Your task to perform on an android device: toggle javascript in the chrome app Image 0: 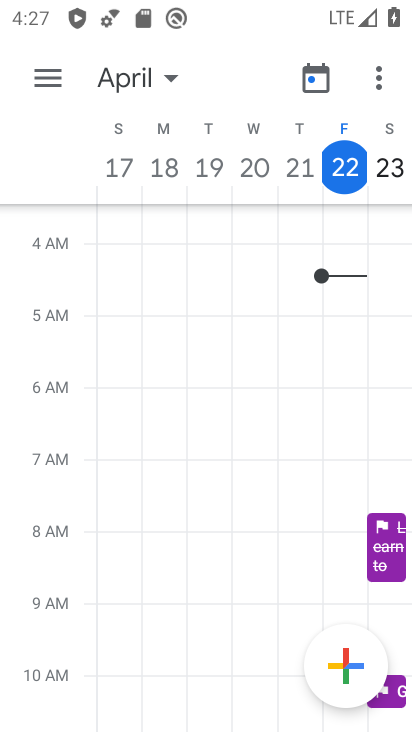
Step 0: press home button
Your task to perform on an android device: toggle javascript in the chrome app Image 1: 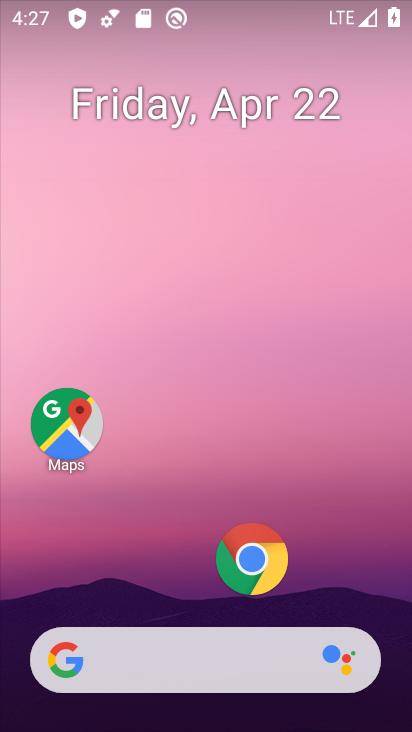
Step 1: click (254, 556)
Your task to perform on an android device: toggle javascript in the chrome app Image 2: 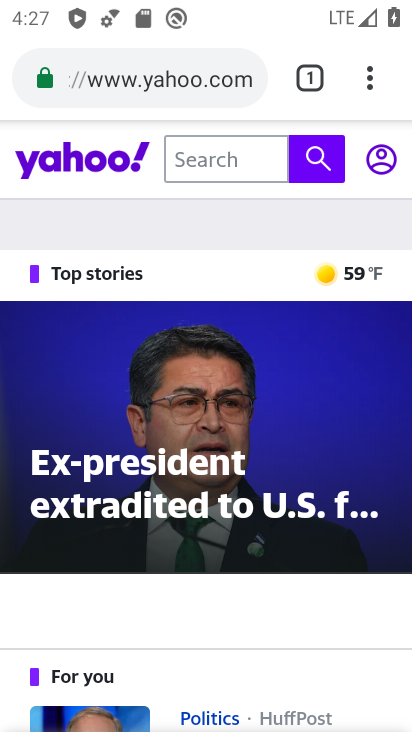
Step 2: click (367, 89)
Your task to perform on an android device: toggle javascript in the chrome app Image 3: 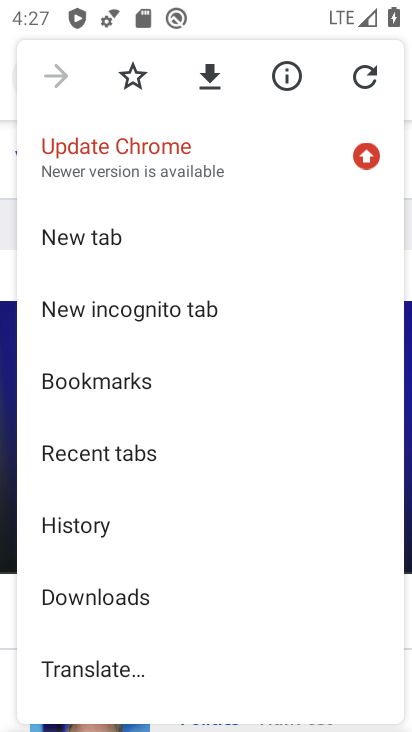
Step 3: drag from (158, 571) to (284, 32)
Your task to perform on an android device: toggle javascript in the chrome app Image 4: 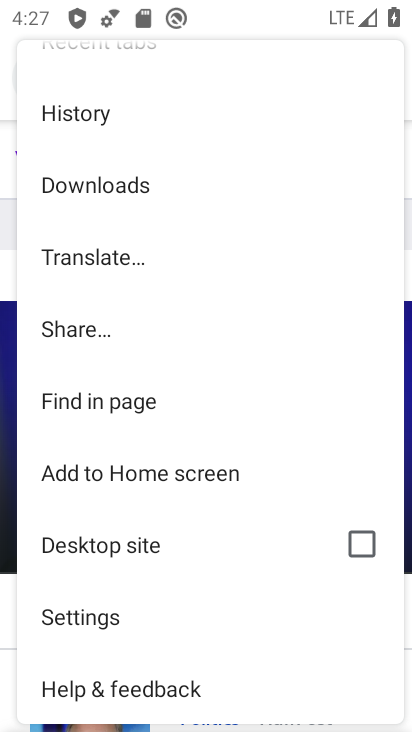
Step 4: click (80, 617)
Your task to perform on an android device: toggle javascript in the chrome app Image 5: 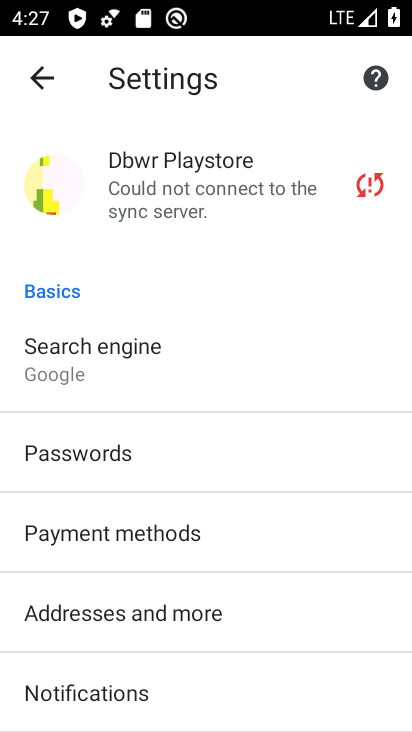
Step 5: drag from (116, 631) to (172, 396)
Your task to perform on an android device: toggle javascript in the chrome app Image 6: 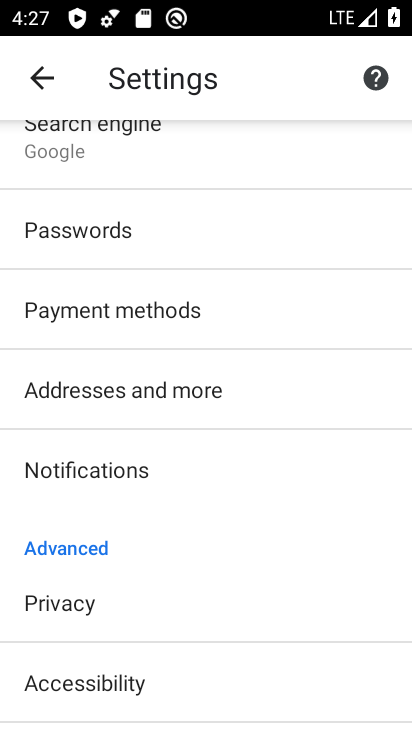
Step 6: drag from (112, 639) to (124, 460)
Your task to perform on an android device: toggle javascript in the chrome app Image 7: 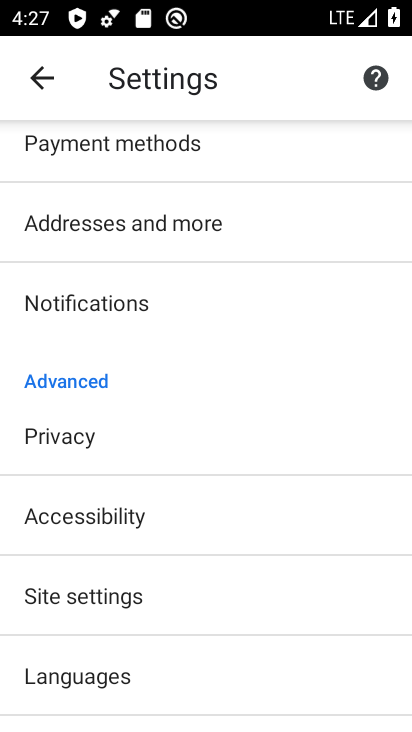
Step 7: click (88, 603)
Your task to perform on an android device: toggle javascript in the chrome app Image 8: 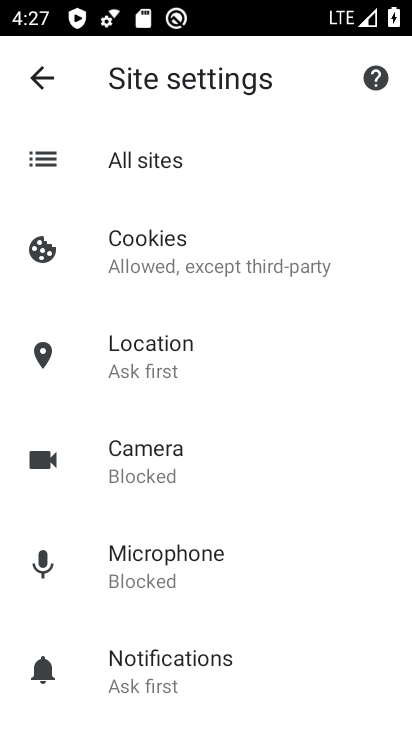
Step 8: drag from (136, 616) to (223, 166)
Your task to perform on an android device: toggle javascript in the chrome app Image 9: 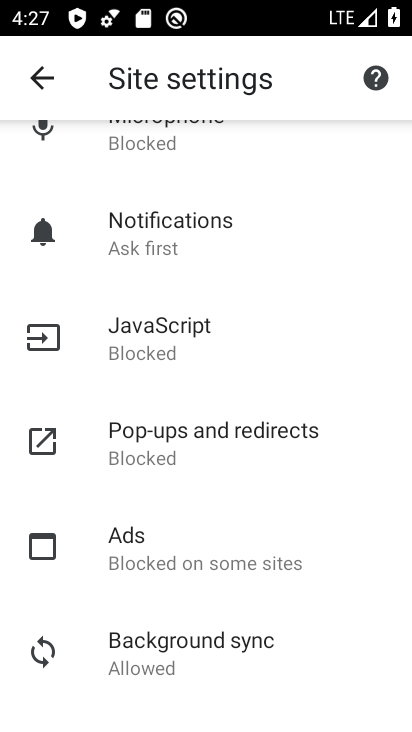
Step 9: click (173, 343)
Your task to perform on an android device: toggle javascript in the chrome app Image 10: 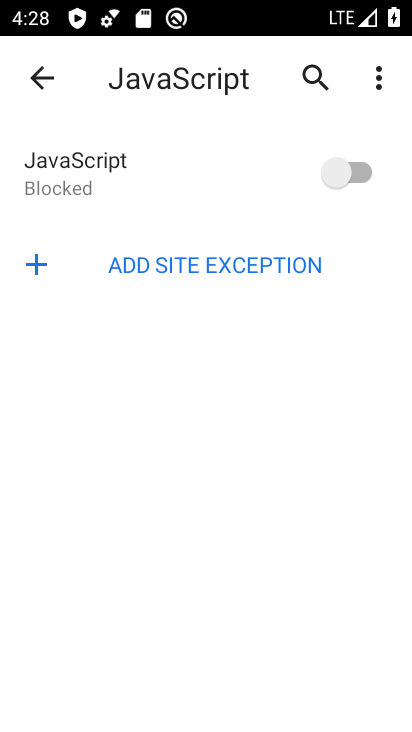
Step 10: click (357, 161)
Your task to perform on an android device: toggle javascript in the chrome app Image 11: 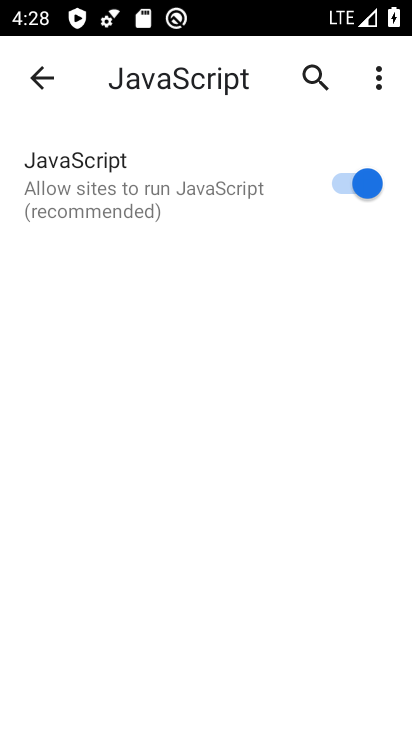
Step 11: task complete